Your task to perform on an android device: open a bookmark in the chrome app Image 0: 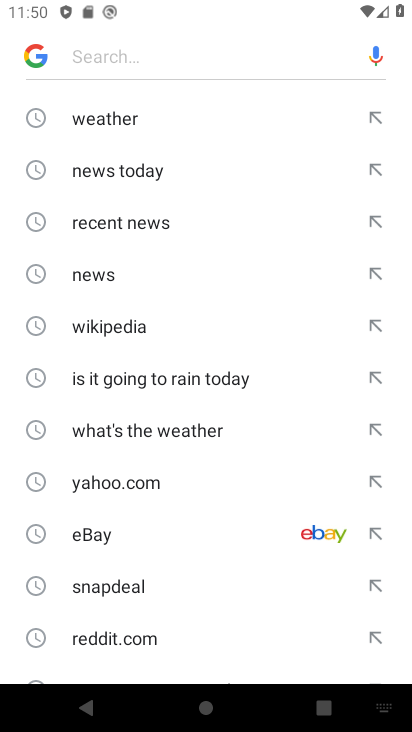
Step 0: press home button
Your task to perform on an android device: open a bookmark in the chrome app Image 1: 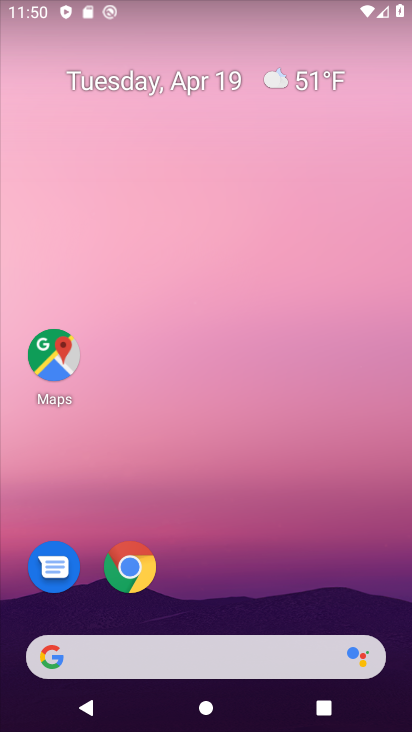
Step 1: click (126, 566)
Your task to perform on an android device: open a bookmark in the chrome app Image 2: 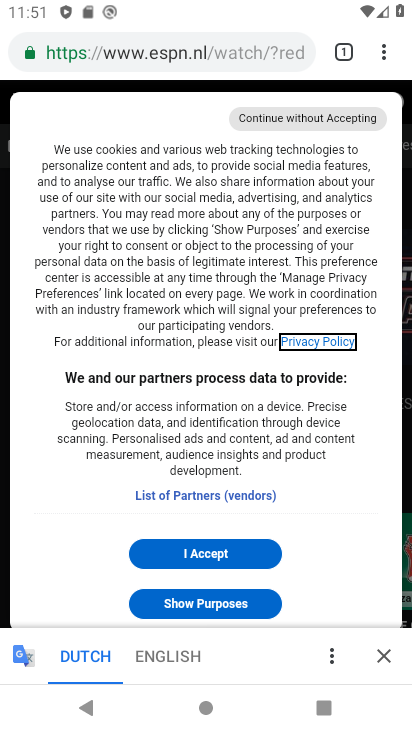
Step 2: click (385, 52)
Your task to perform on an android device: open a bookmark in the chrome app Image 3: 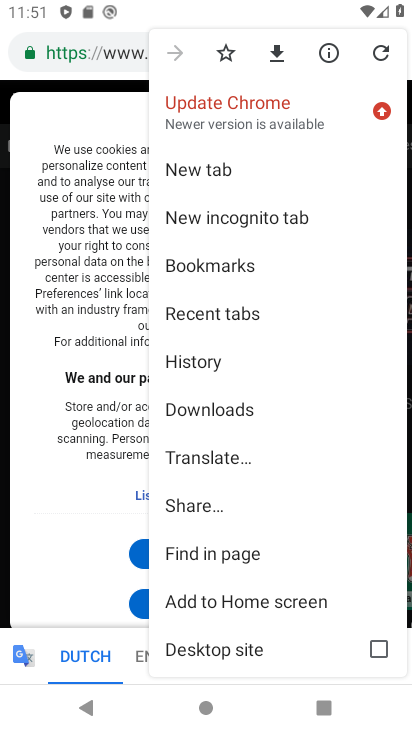
Step 3: click (211, 269)
Your task to perform on an android device: open a bookmark in the chrome app Image 4: 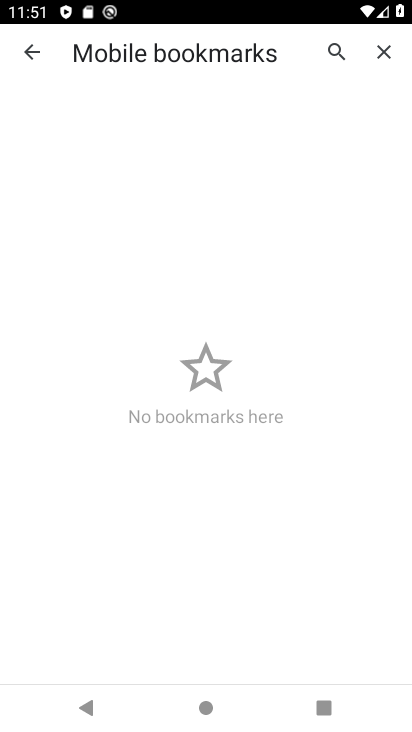
Step 4: click (25, 54)
Your task to perform on an android device: open a bookmark in the chrome app Image 5: 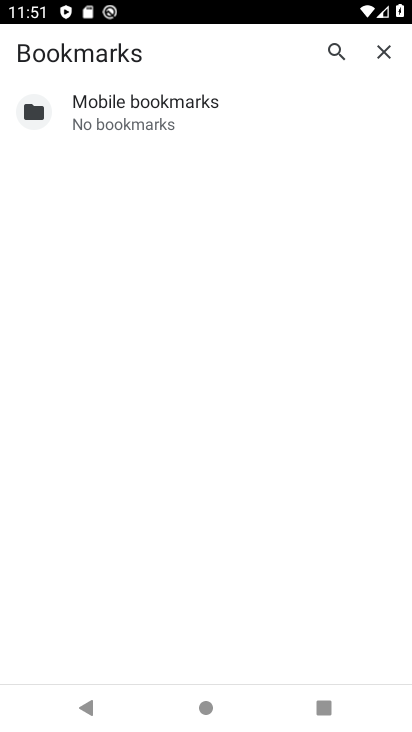
Step 5: click (380, 54)
Your task to perform on an android device: open a bookmark in the chrome app Image 6: 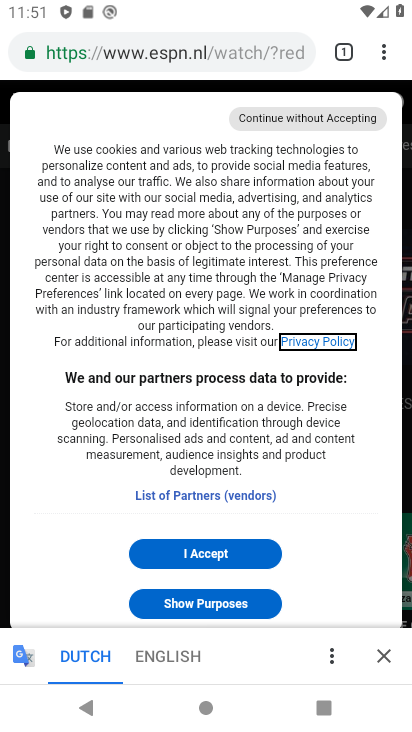
Step 6: click (339, 61)
Your task to perform on an android device: open a bookmark in the chrome app Image 7: 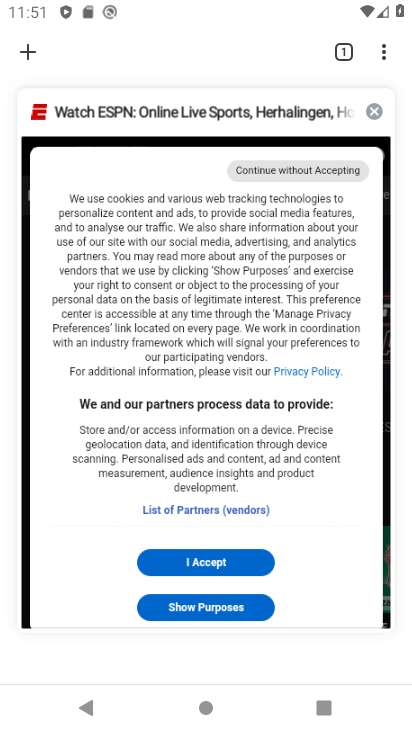
Step 7: click (21, 50)
Your task to perform on an android device: open a bookmark in the chrome app Image 8: 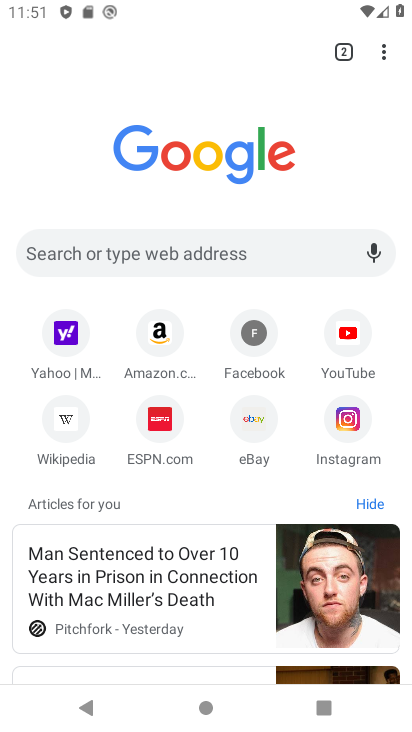
Step 8: click (68, 431)
Your task to perform on an android device: open a bookmark in the chrome app Image 9: 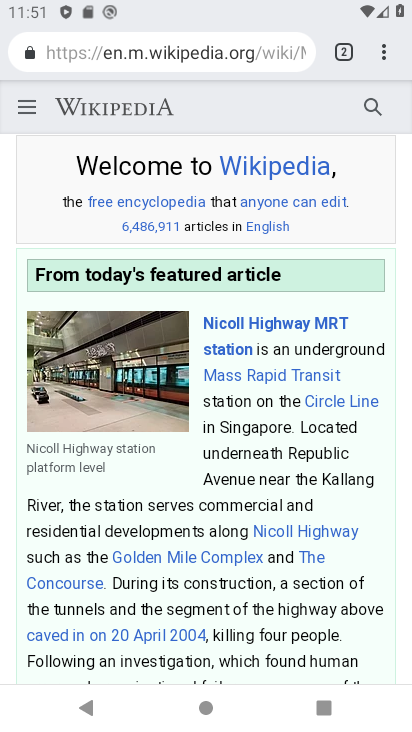
Step 9: task complete